Your task to perform on an android device: turn off notifications in google photos Image 0: 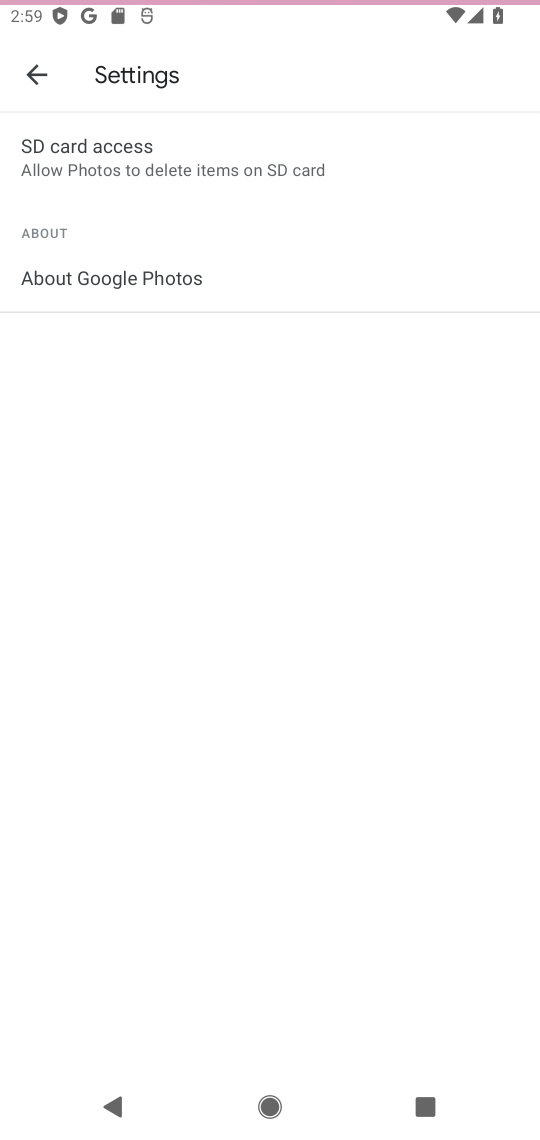
Step 0: click (536, 311)
Your task to perform on an android device: turn off notifications in google photos Image 1: 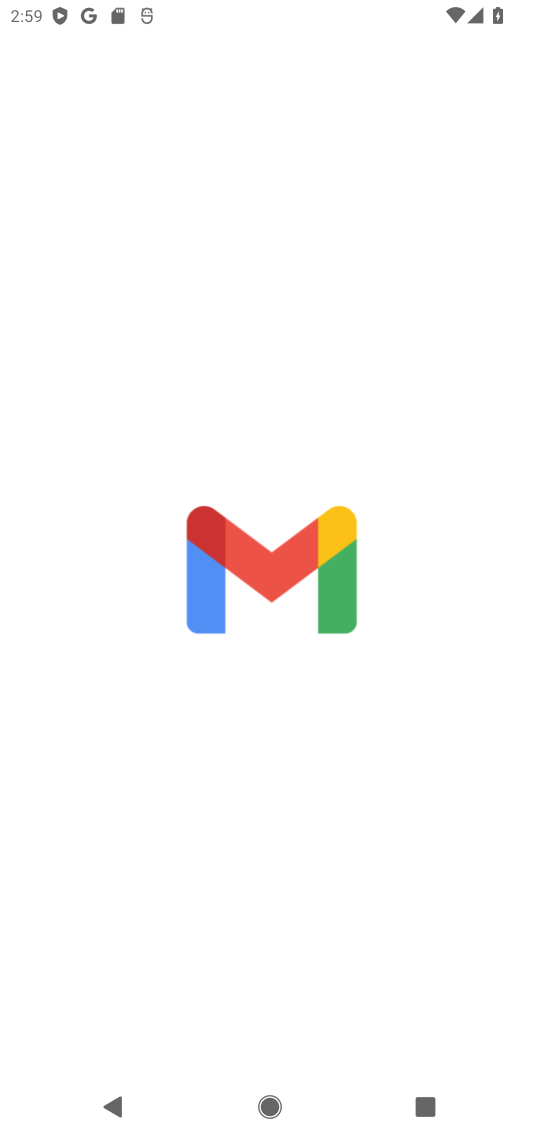
Step 1: drag from (345, 519) to (508, 1019)
Your task to perform on an android device: turn off notifications in google photos Image 2: 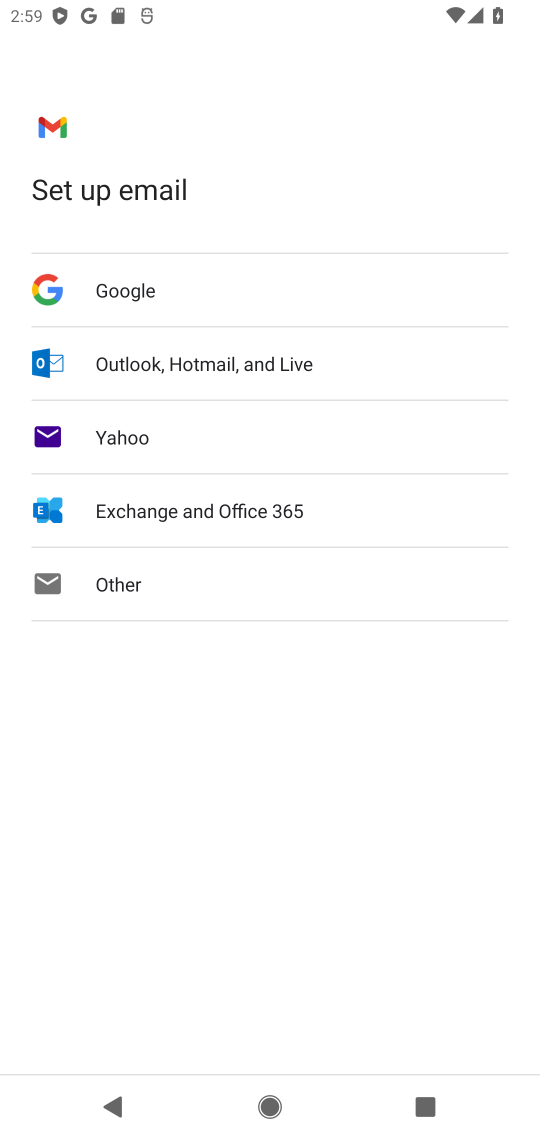
Step 2: press home button
Your task to perform on an android device: turn off notifications in google photos Image 3: 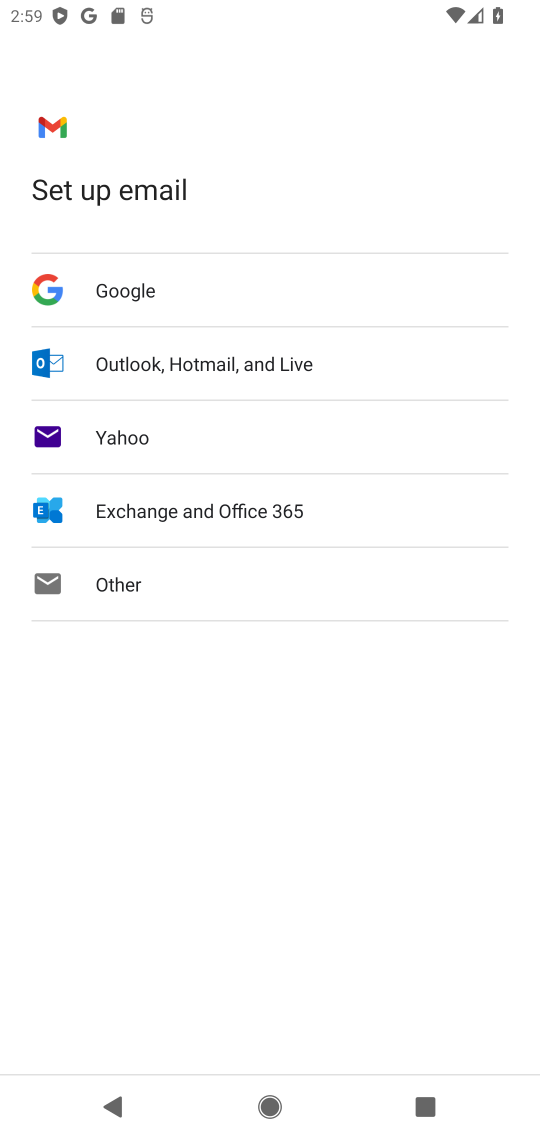
Step 3: press home button
Your task to perform on an android device: turn off notifications in google photos Image 4: 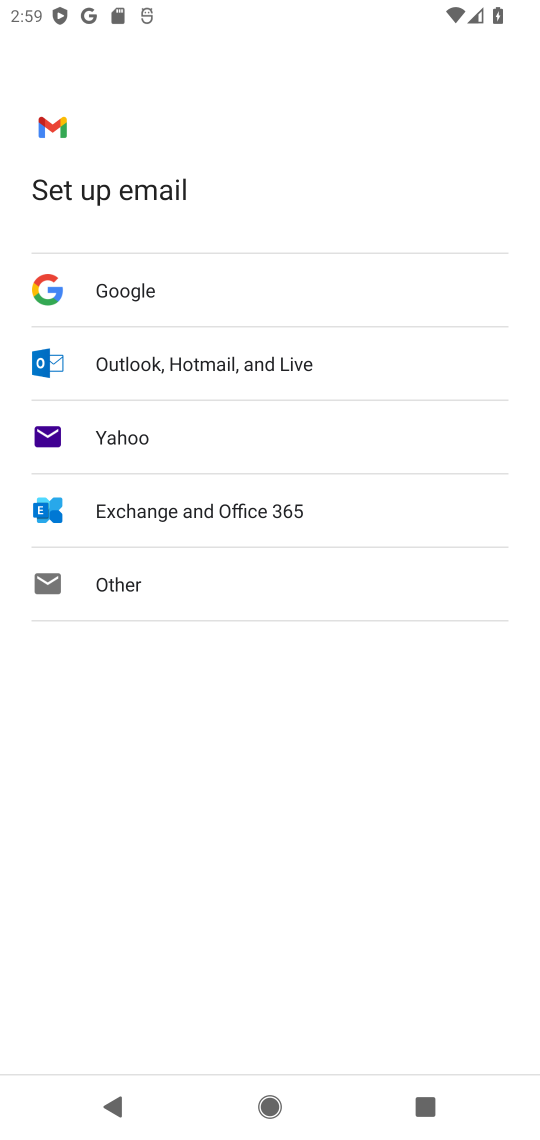
Step 4: drag from (508, 1019) to (538, 756)
Your task to perform on an android device: turn off notifications in google photos Image 5: 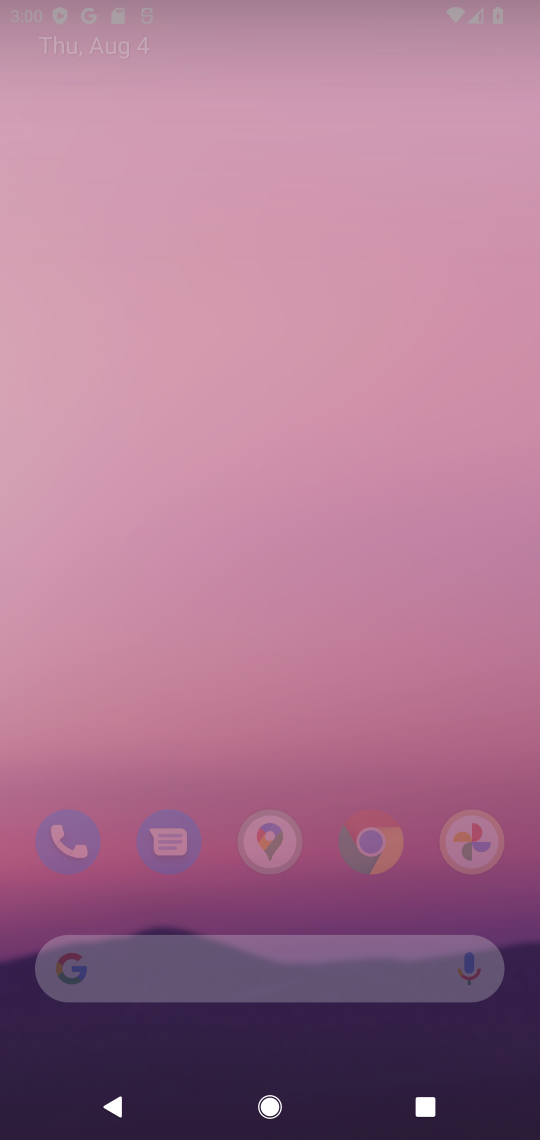
Step 5: drag from (209, 838) to (398, 35)
Your task to perform on an android device: turn off notifications in google photos Image 6: 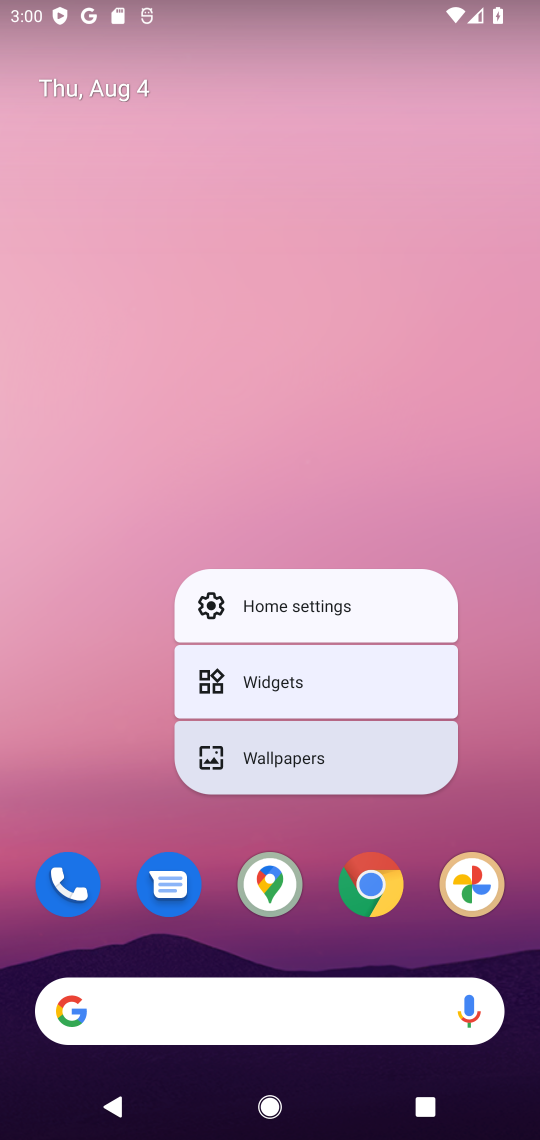
Step 6: click (310, 928)
Your task to perform on an android device: turn off notifications in google photos Image 7: 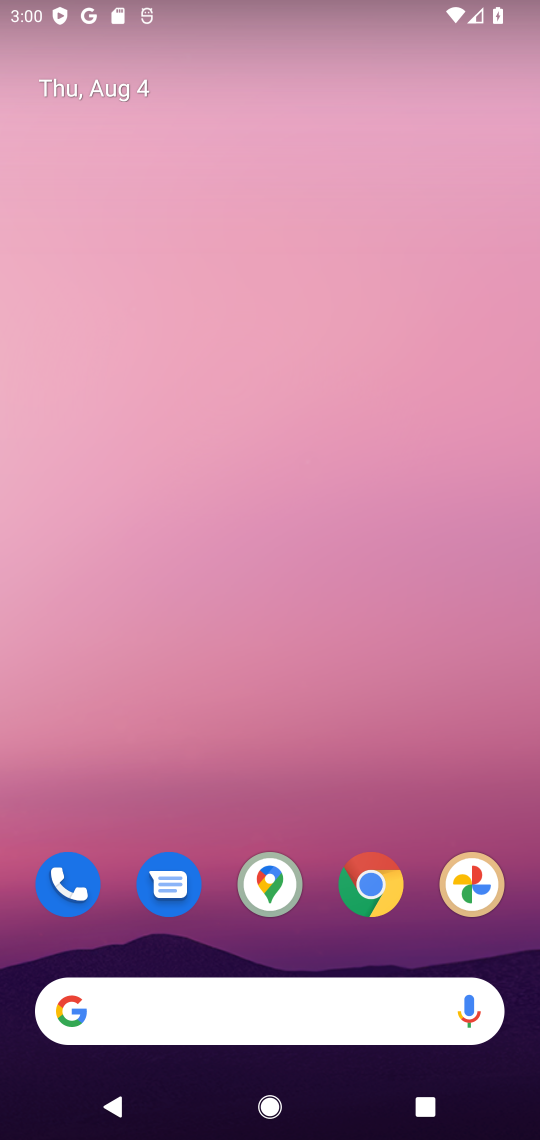
Step 7: click (466, 881)
Your task to perform on an android device: turn off notifications in google photos Image 8: 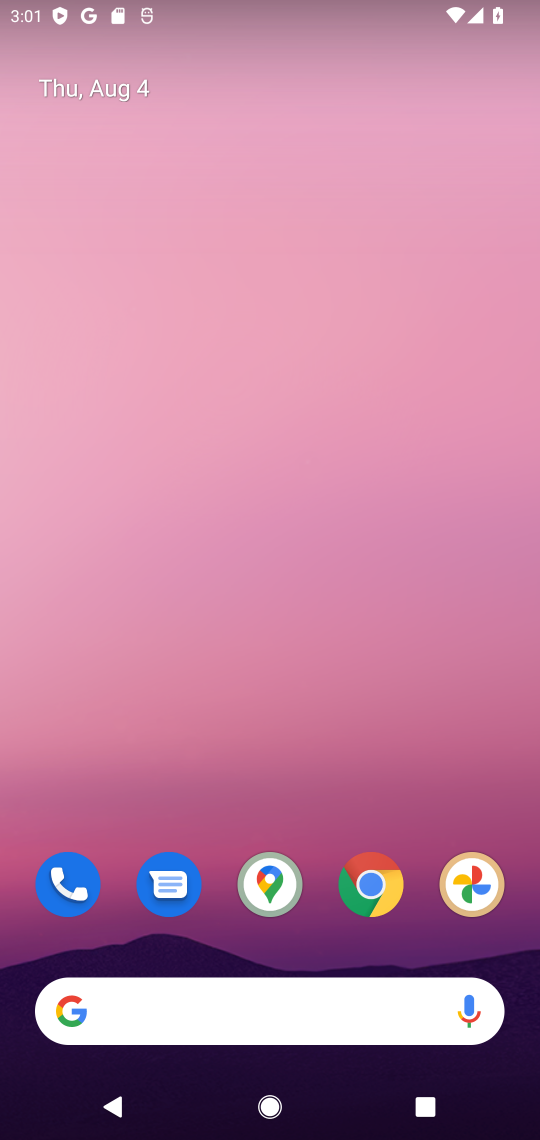
Step 8: drag from (289, 878) to (517, 313)
Your task to perform on an android device: turn off notifications in google photos Image 9: 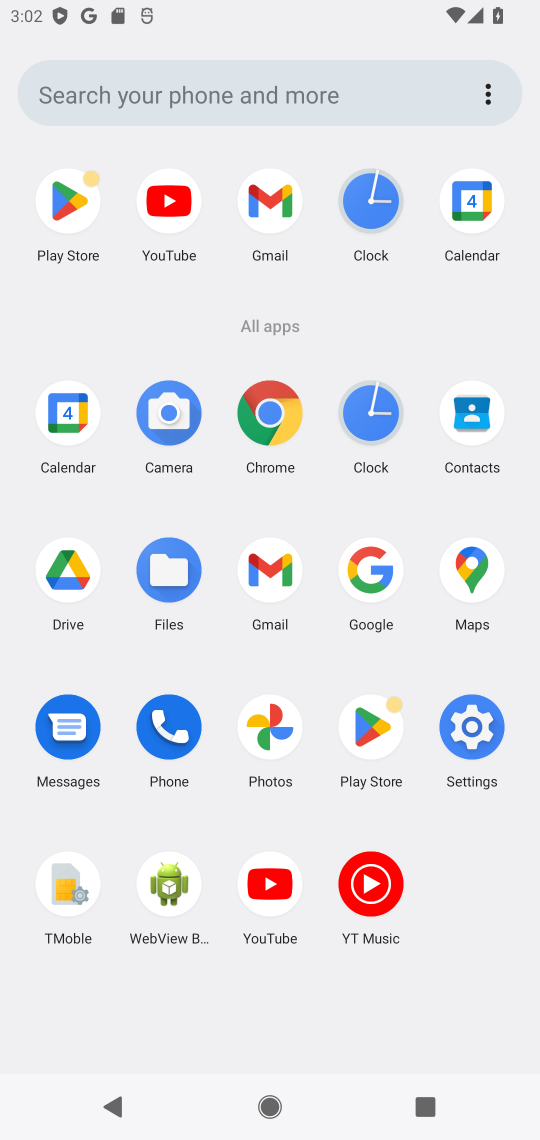
Step 9: click (253, 734)
Your task to perform on an android device: turn off notifications in google photos Image 10: 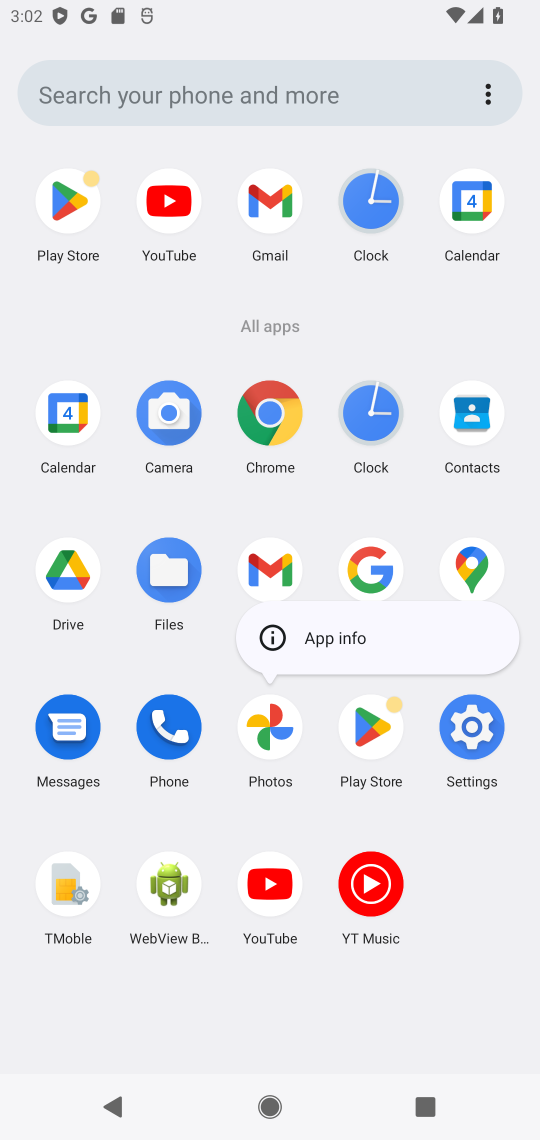
Step 10: click (296, 638)
Your task to perform on an android device: turn off notifications in google photos Image 11: 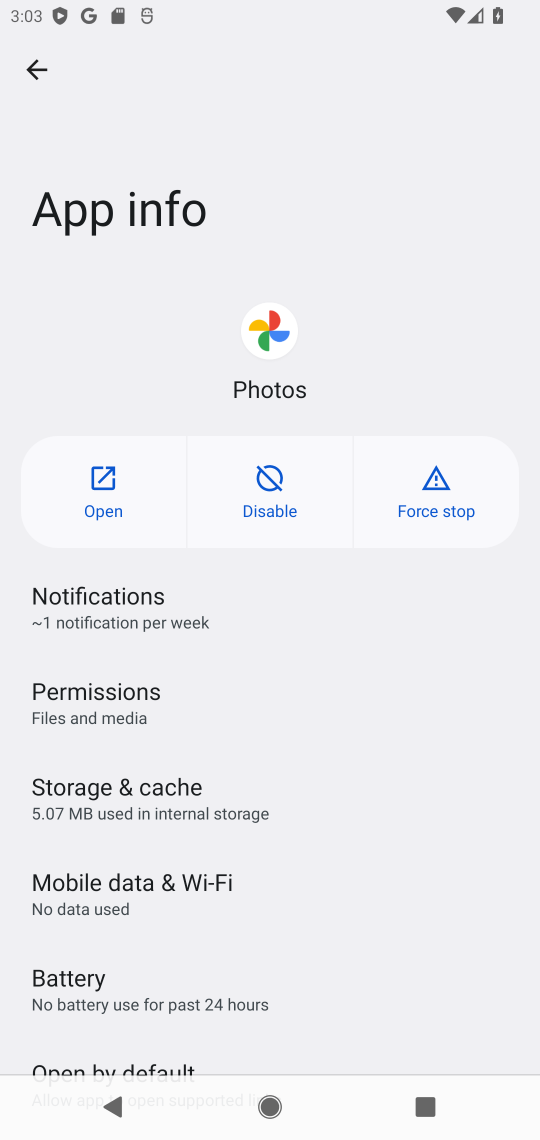
Step 11: click (93, 458)
Your task to perform on an android device: turn off notifications in google photos Image 12: 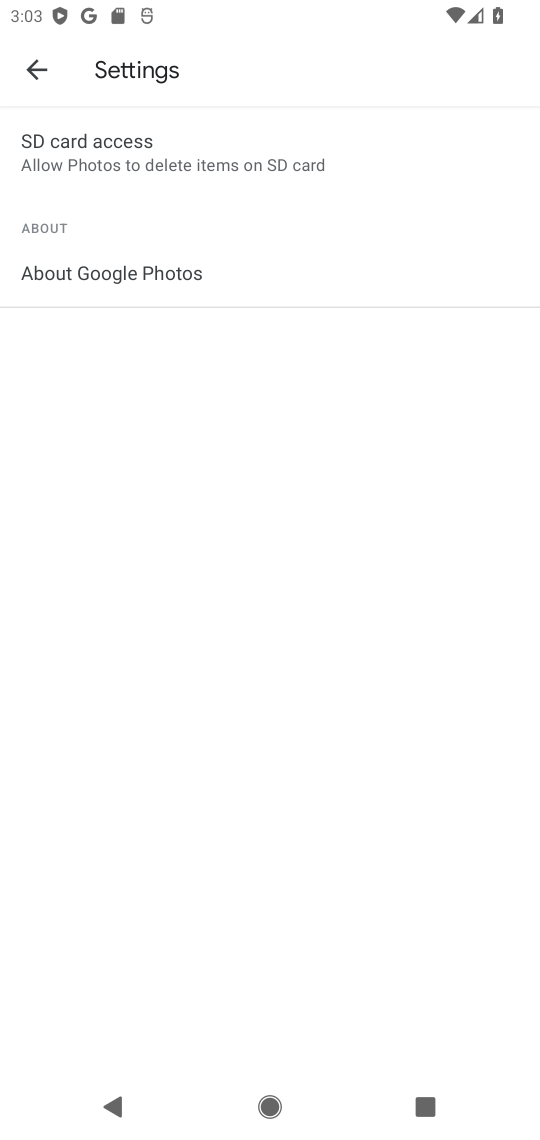
Step 12: drag from (244, 578) to (390, 443)
Your task to perform on an android device: turn off notifications in google photos Image 13: 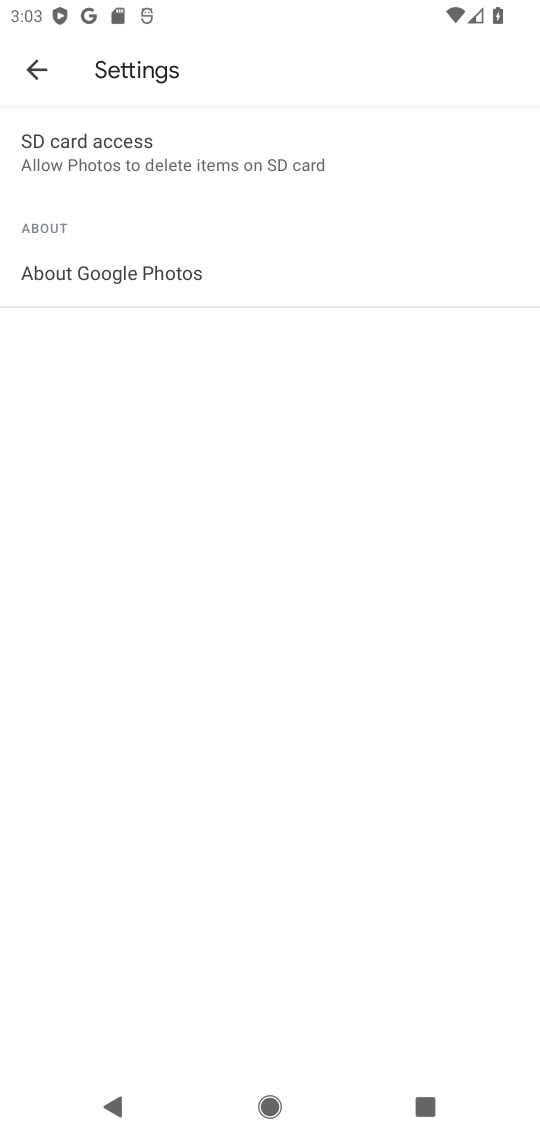
Step 13: drag from (195, 821) to (311, 390)
Your task to perform on an android device: turn off notifications in google photos Image 14: 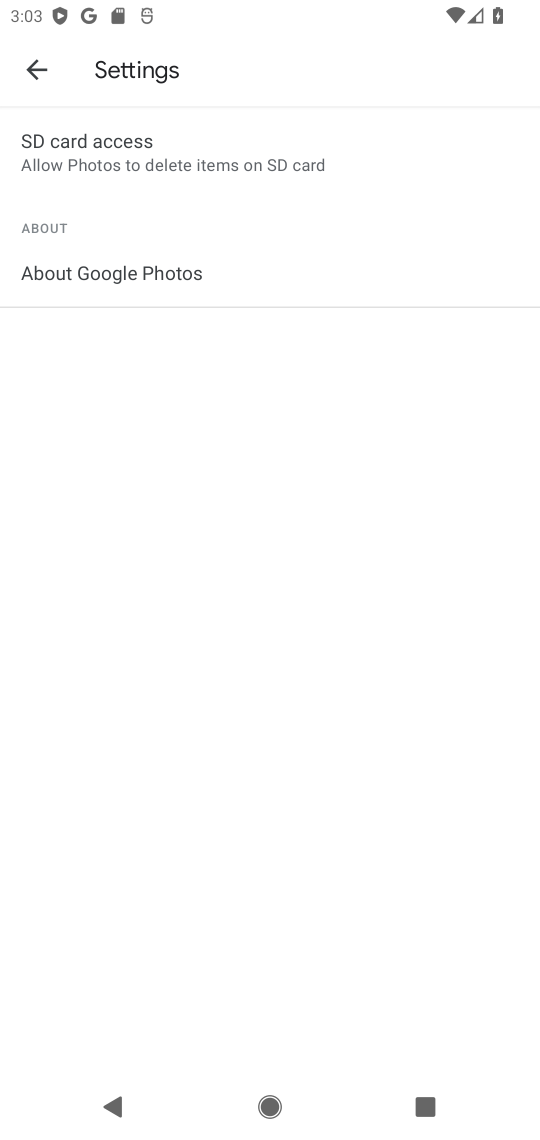
Step 14: press home button
Your task to perform on an android device: turn off notifications in google photos Image 15: 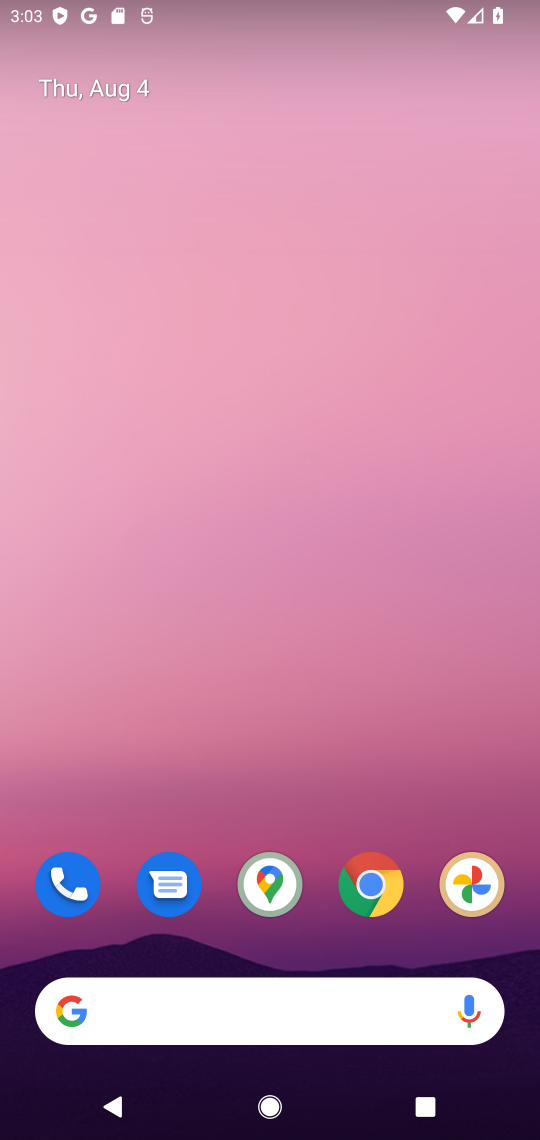
Step 15: drag from (213, 970) to (394, 173)
Your task to perform on an android device: turn off notifications in google photos Image 16: 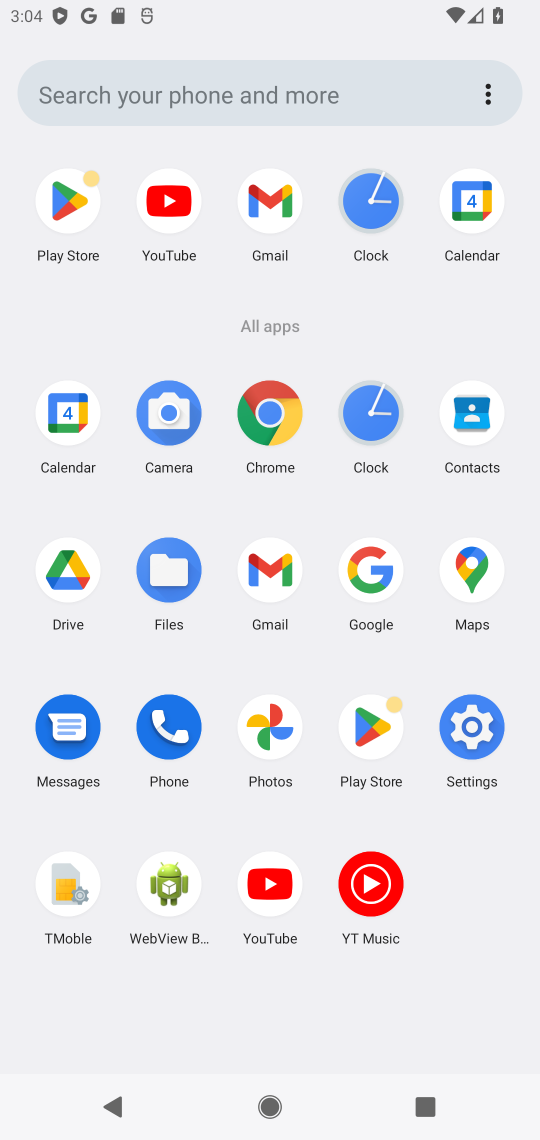
Step 16: click (275, 729)
Your task to perform on an android device: turn off notifications in google photos Image 17: 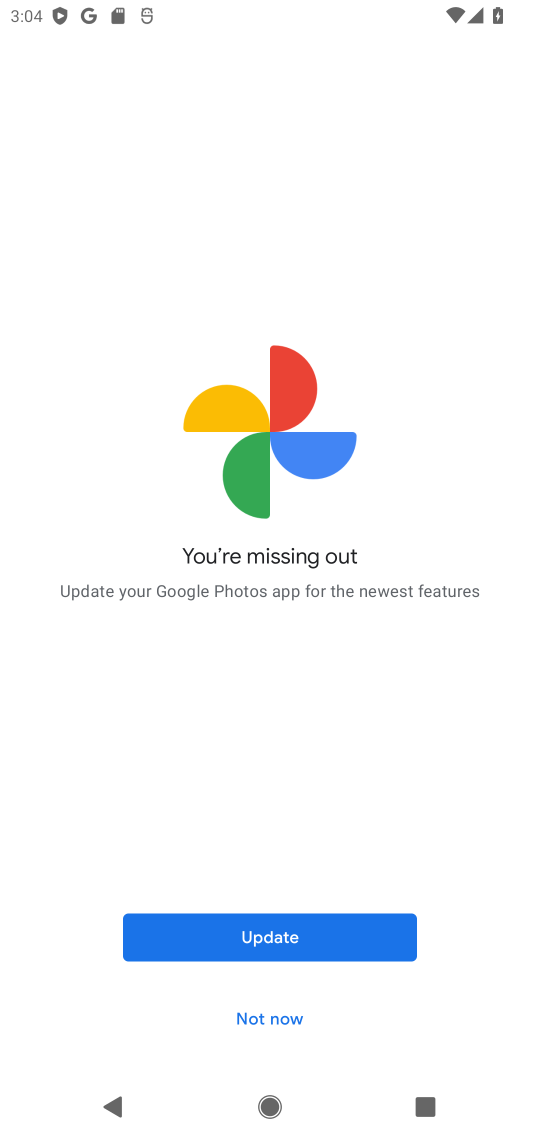
Step 17: click (281, 1019)
Your task to perform on an android device: turn off notifications in google photos Image 18: 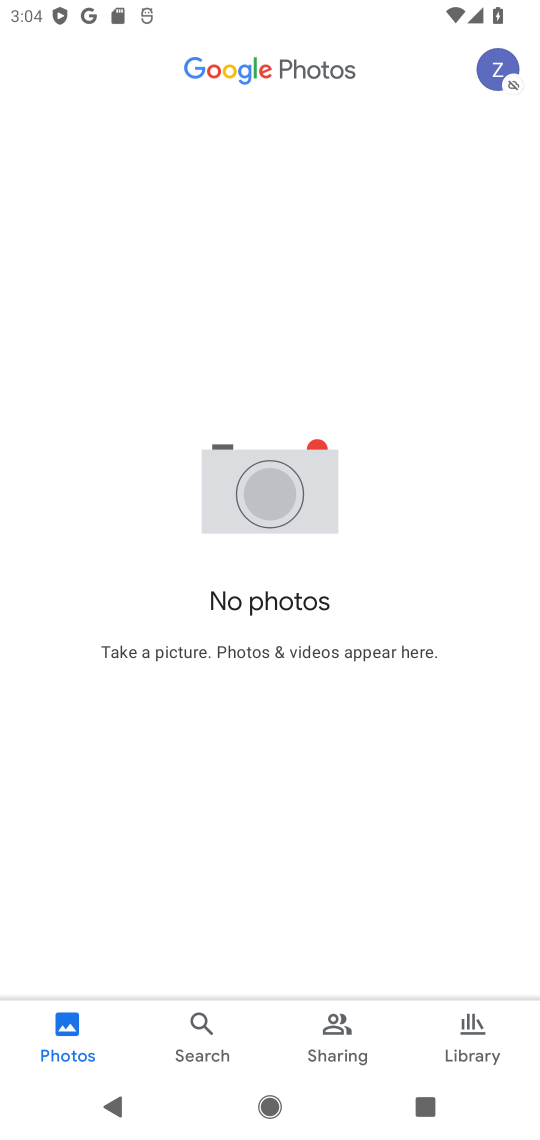
Step 18: click (508, 70)
Your task to perform on an android device: turn off notifications in google photos Image 19: 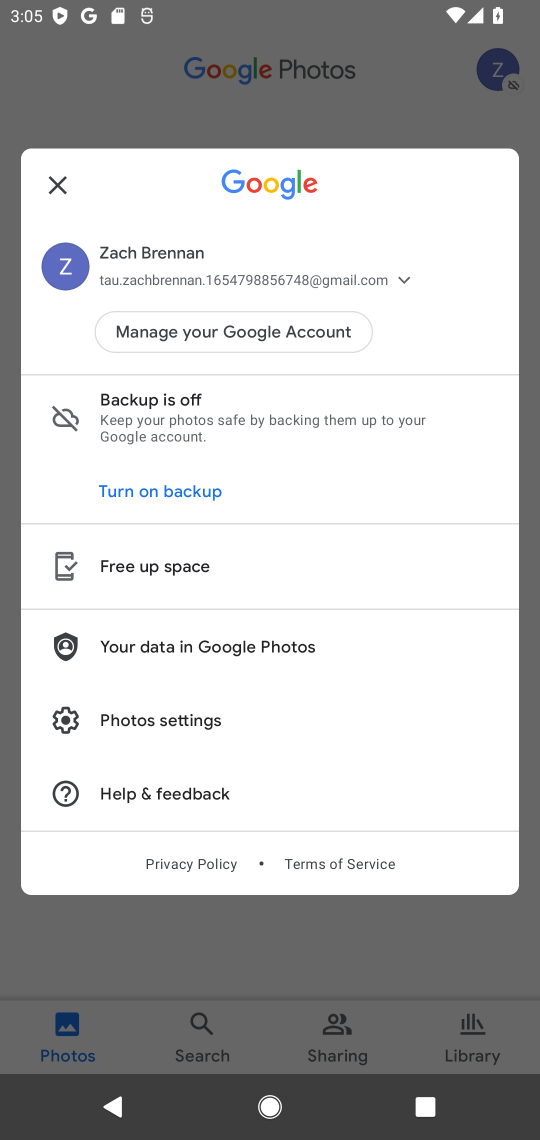
Step 19: click (176, 707)
Your task to perform on an android device: turn off notifications in google photos Image 20: 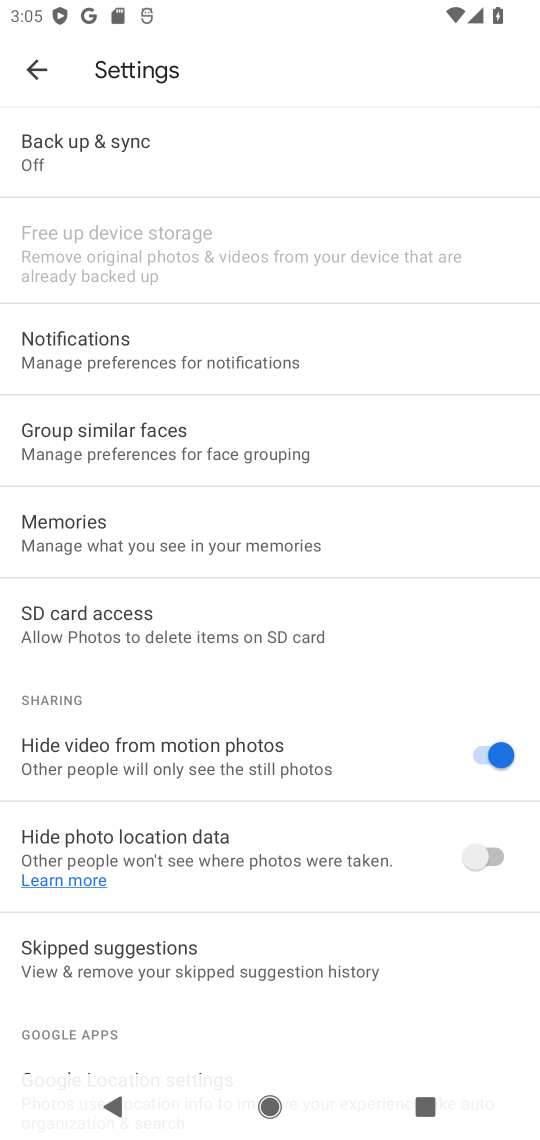
Step 20: click (100, 370)
Your task to perform on an android device: turn off notifications in google photos Image 21: 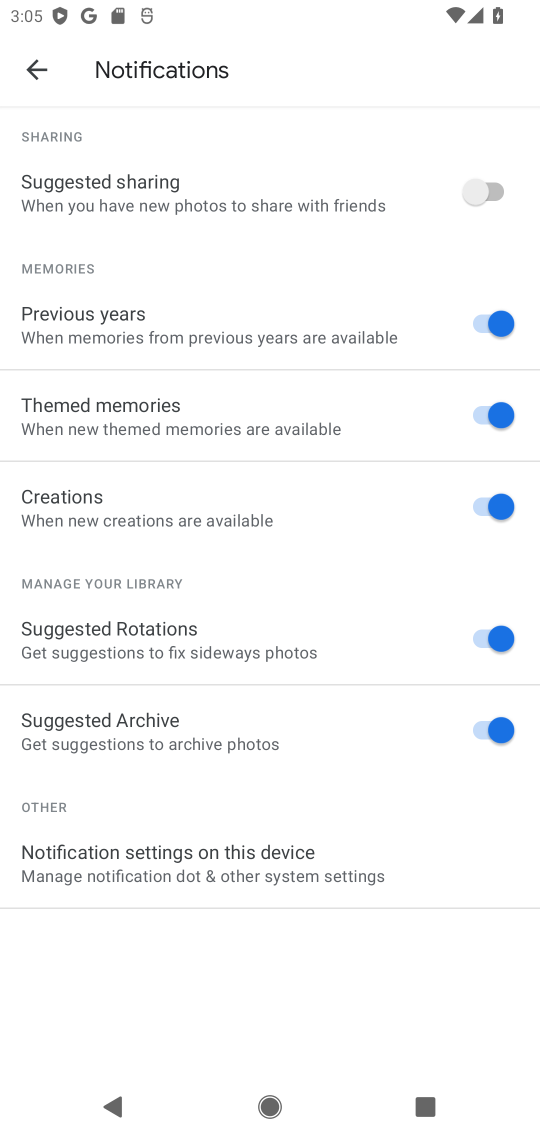
Step 21: click (175, 865)
Your task to perform on an android device: turn off notifications in google photos Image 22: 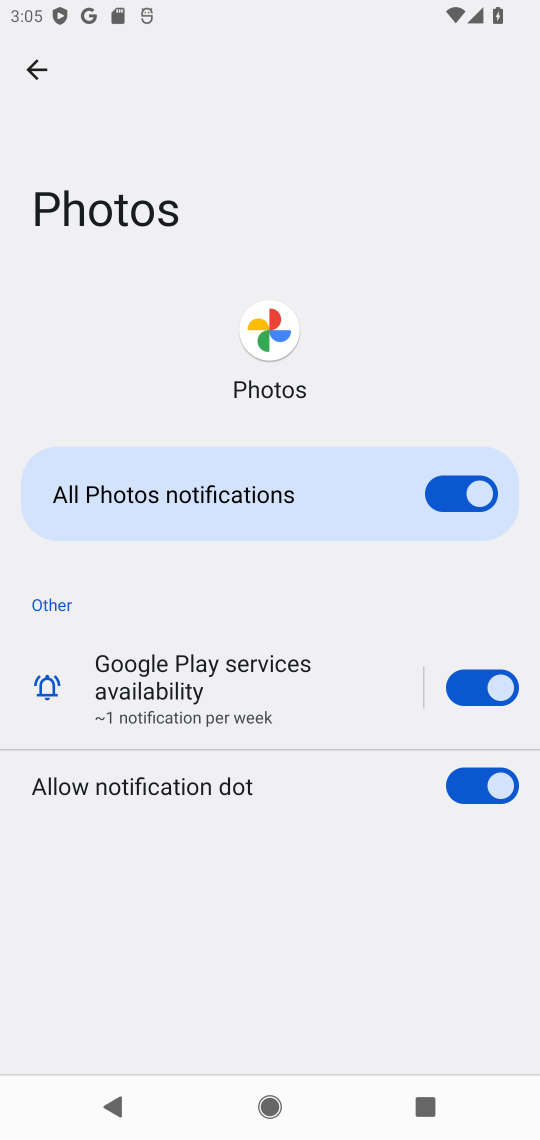
Step 22: click (462, 486)
Your task to perform on an android device: turn off notifications in google photos Image 23: 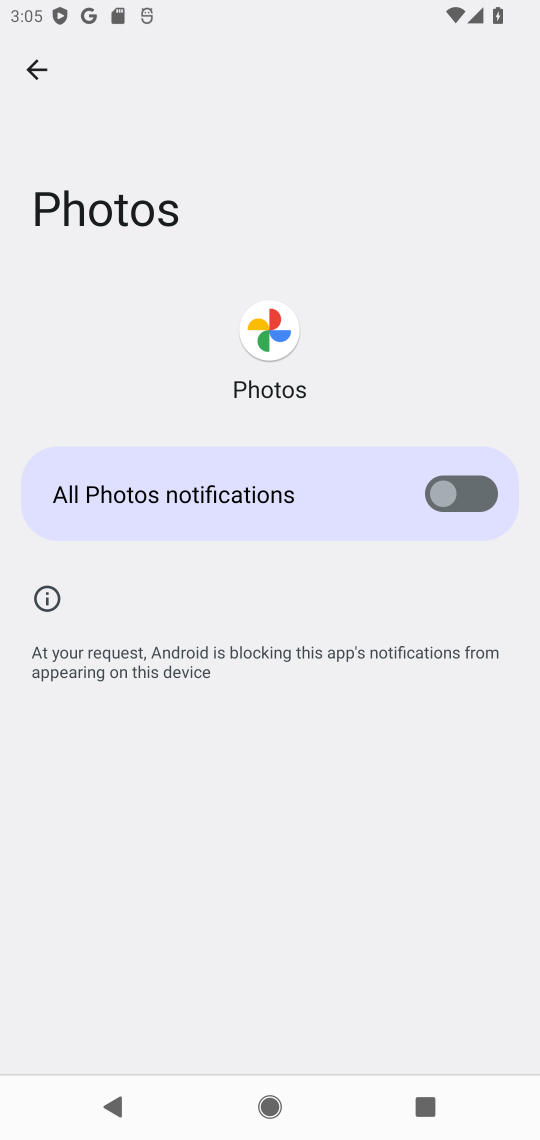
Step 23: task complete